Your task to perform on an android device: see creations saved in the google photos Image 0: 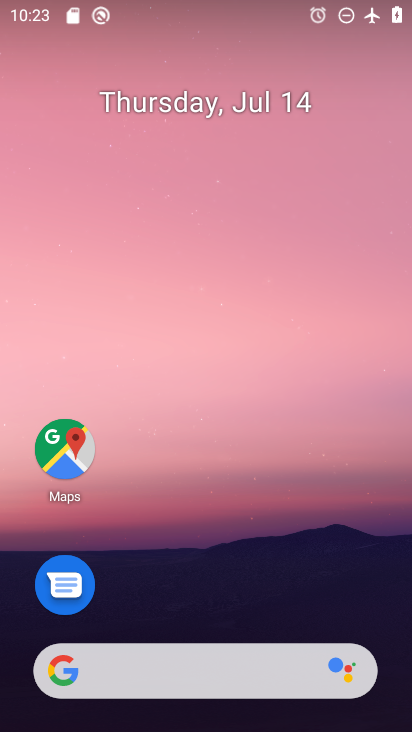
Step 0: drag from (218, 621) to (154, 99)
Your task to perform on an android device: see creations saved in the google photos Image 1: 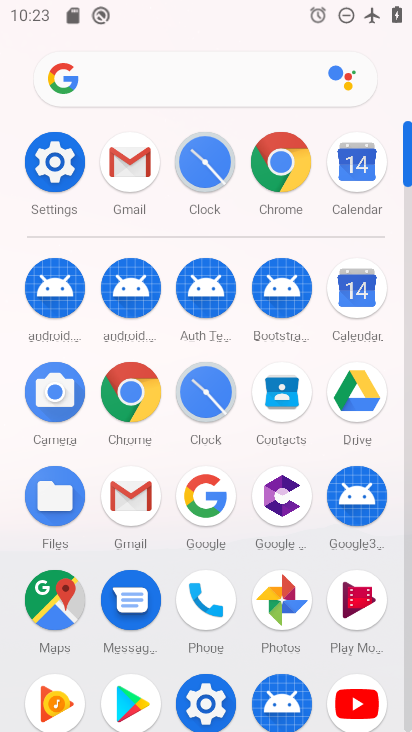
Step 1: click (268, 588)
Your task to perform on an android device: see creations saved in the google photos Image 2: 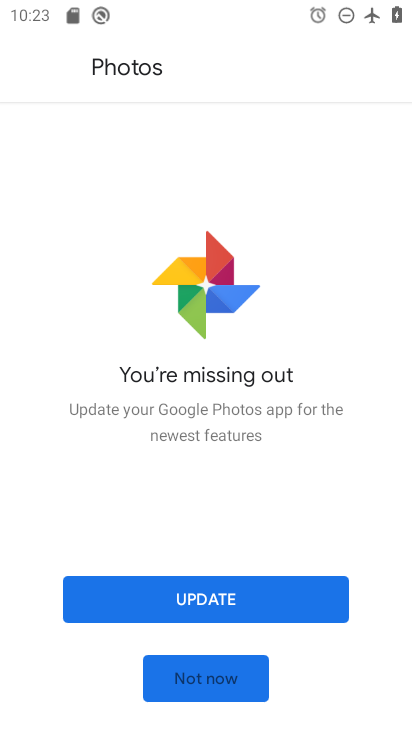
Step 2: click (221, 662)
Your task to perform on an android device: see creations saved in the google photos Image 3: 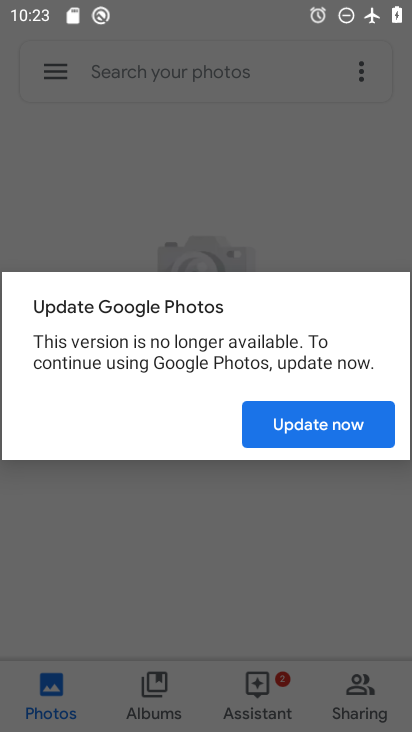
Step 3: click (302, 511)
Your task to perform on an android device: see creations saved in the google photos Image 4: 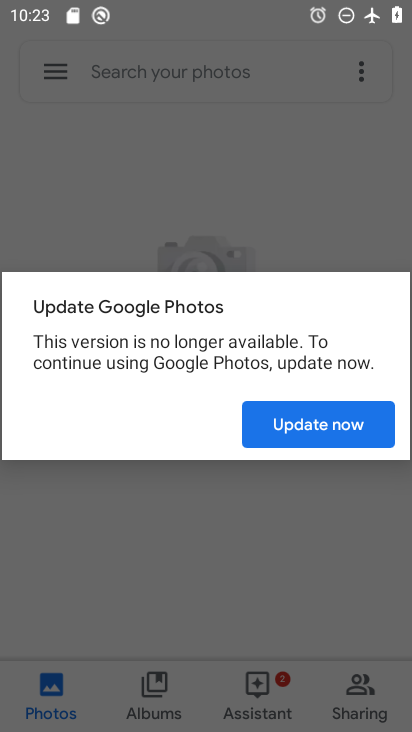
Step 4: click (330, 425)
Your task to perform on an android device: see creations saved in the google photos Image 5: 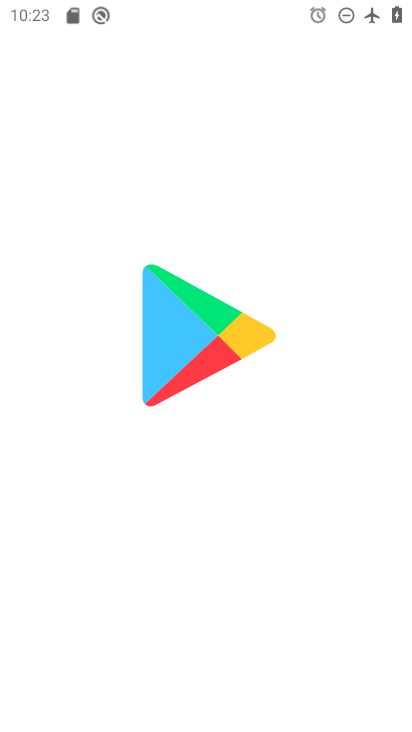
Step 5: click (291, 83)
Your task to perform on an android device: see creations saved in the google photos Image 6: 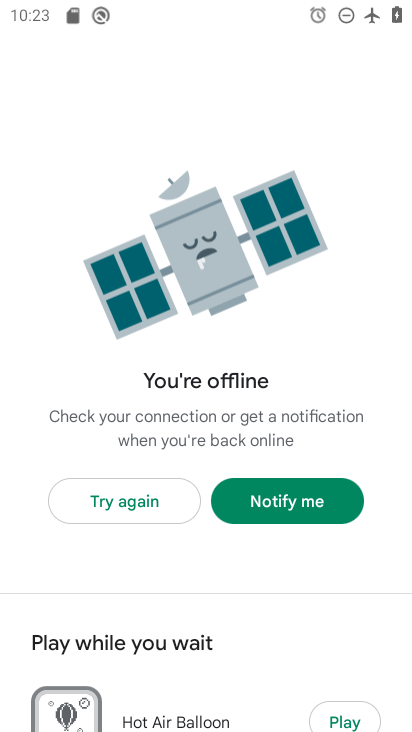
Step 6: click (294, 497)
Your task to perform on an android device: see creations saved in the google photos Image 7: 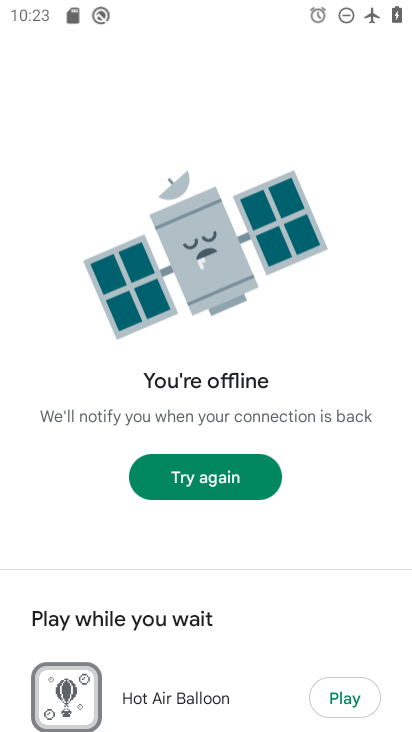
Step 7: task complete